Your task to perform on an android device: What's the weather? Image 0: 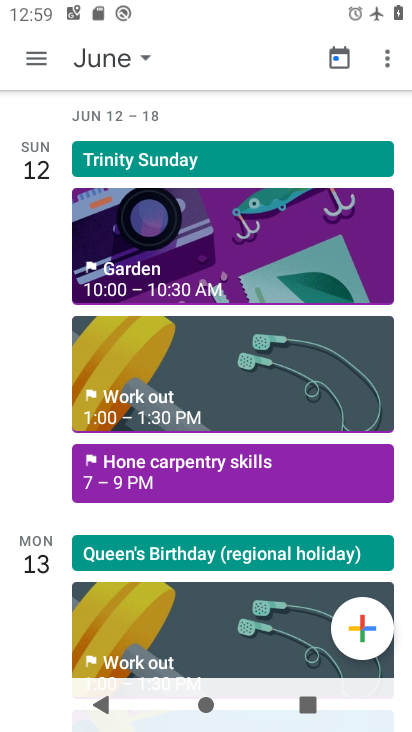
Step 0: press home button
Your task to perform on an android device: What's the weather? Image 1: 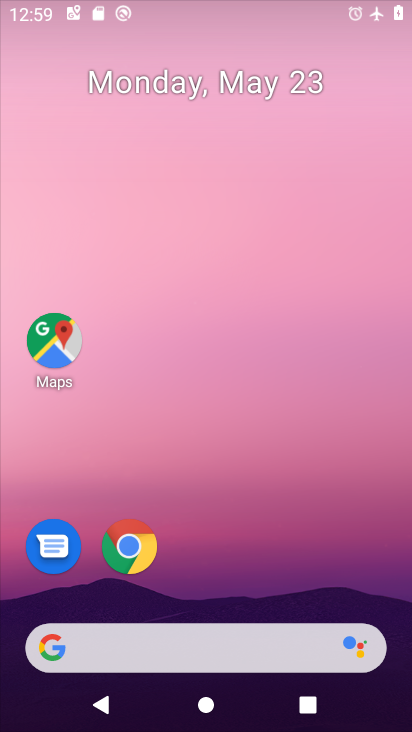
Step 1: drag from (223, 360) to (148, 0)
Your task to perform on an android device: What's the weather? Image 2: 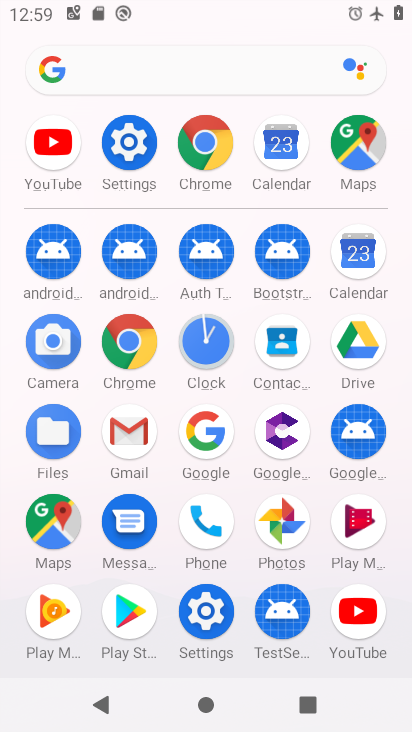
Step 2: click (128, 346)
Your task to perform on an android device: What's the weather? Image 3: 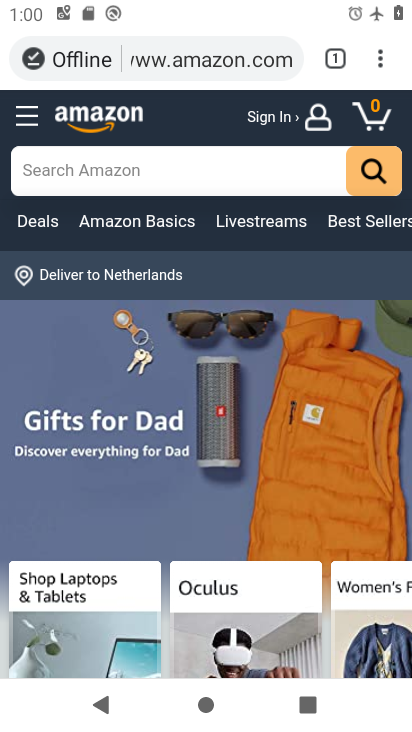
Step 3: press home button
Your task to perform on an android device: What's the weather? Image 4: 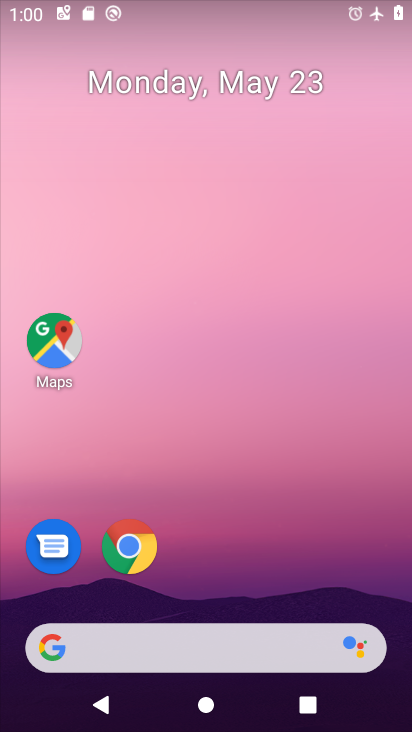
Step 4: drag from (228, 603) to (232, 9)
Your task to perform on an android device: What's the weather? Image 5: 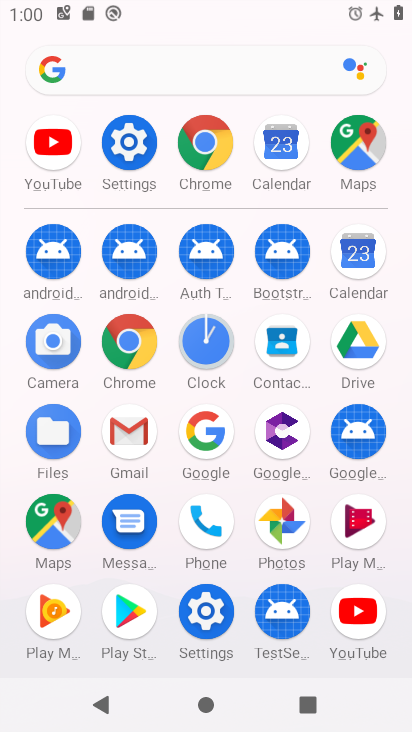
Step 5: click (204, 434)
Your task to perform on an android device: What's the weather? Image 6: 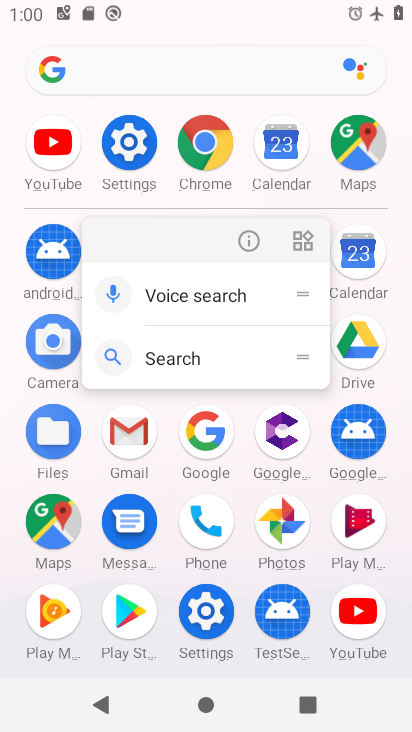
Step 6: click (205, 434)
Your task to perform on an android device: What's the weather? Image 7: 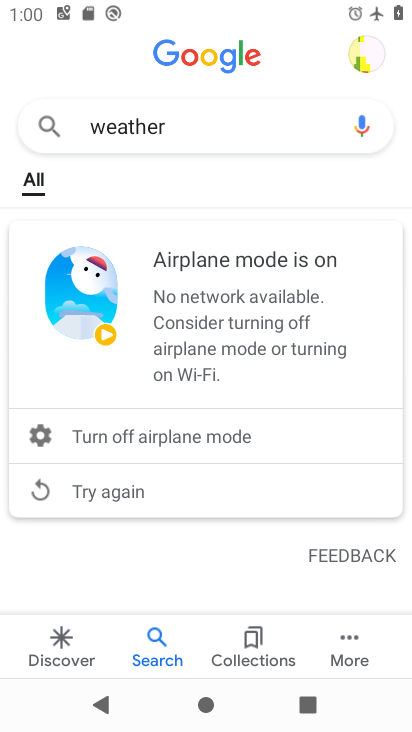
Step 7: task complete